Your task to perform on an android device: turn off javascript in the chrome app Image 0: 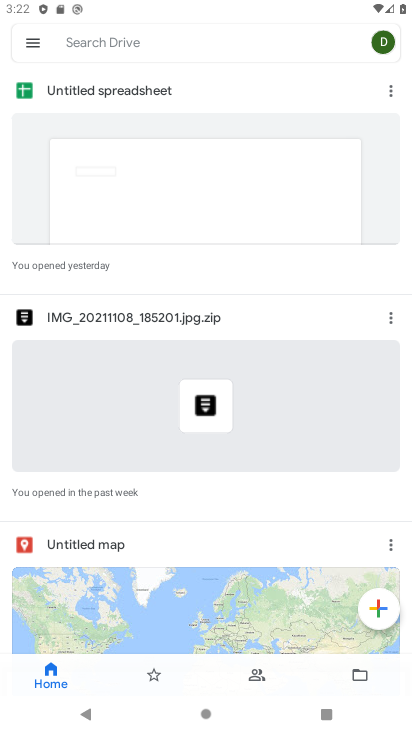
Step 0: press home button
Your task to perform on an android device: turn off javascript in the chrome app Image 1: 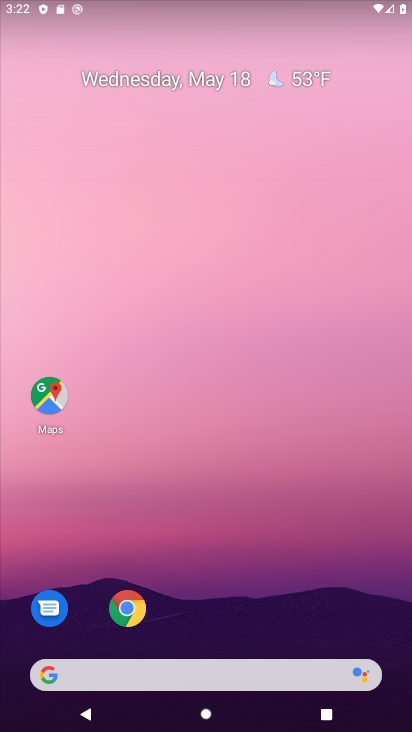
Step 1: drag from (276, 647) to (298, 45)
Your task to perform on an android device: turn off javascript in the chrome app Image 2: 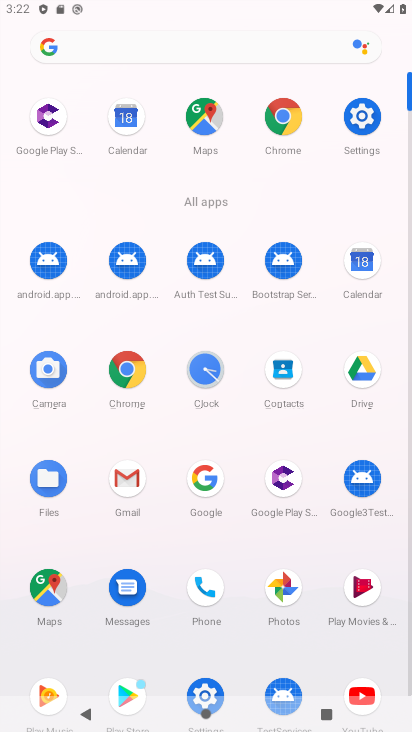
Step 2: click (126, 377)
Your task to perform on an android device: turn off javascript in the chrome app Image 3: 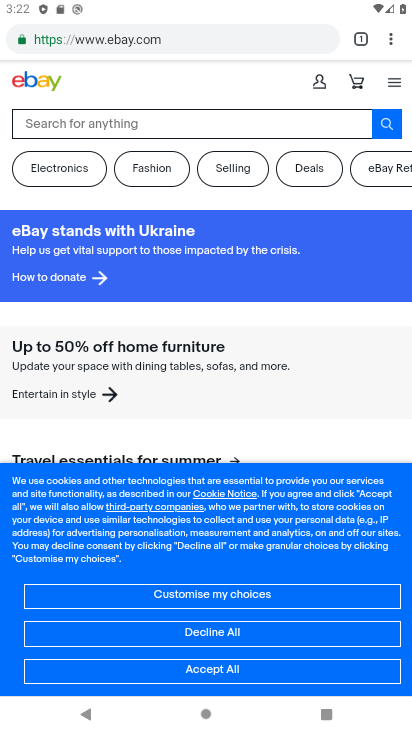
Step 3: click (390, 37)
Your task to perform on an android device: turn off javascript in the chrome app Image 4: 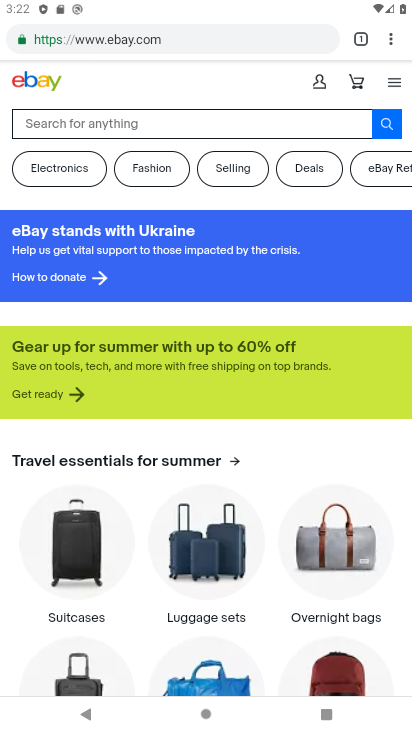
Step 4: click (384, 36)
Your task to perform on an android device: turn off javascript in the chrome app Image 5: 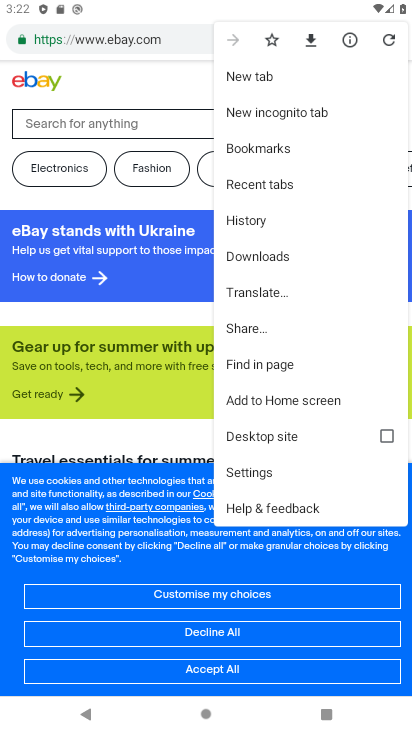
Step 5: click (282, 467)
Your task to perform on an android device: turn off javascript in the chrome app Image 6: 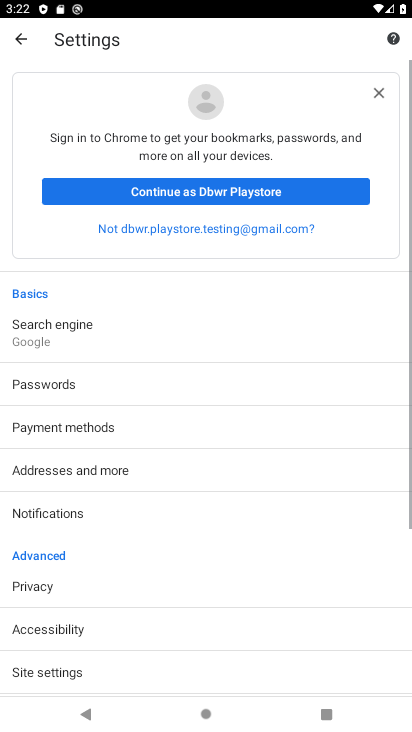
Step 6: drag from (251, 667) to (233, 293)
Your task to perform on an android device: turn off javascript in the chrome app Image 7: 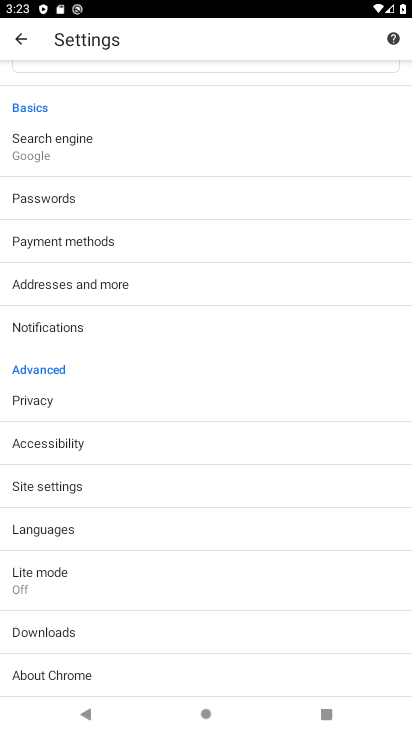
Step 7: click (96, 474)
Your task to perform on an android device: turn off javascript in the chrome app Image 8: 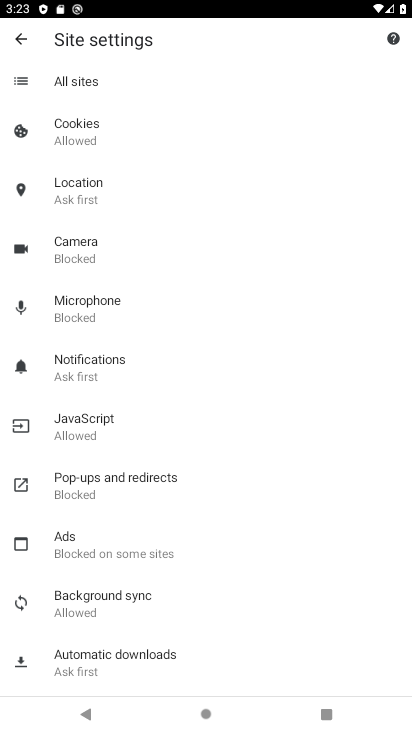
Step 8: click (99, 423)
Your task to perform on an android device: turn off javascript in the chrome app Image 9: 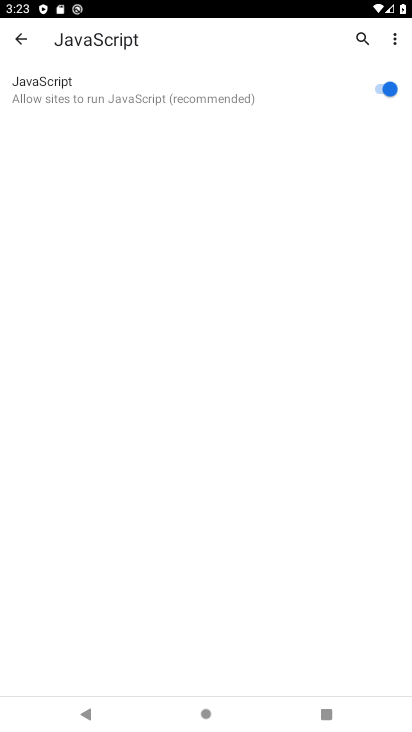
Step 9: click (381, 88)
Your task to perform on an android device: turn off javascript in the chrome app Image 10: 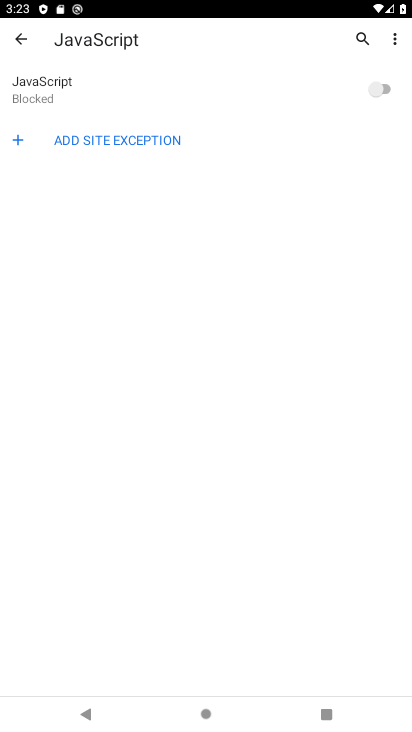
Step 10: task complete